Your task to perform on an android device: View the shopping cart on amazon. Image 0: 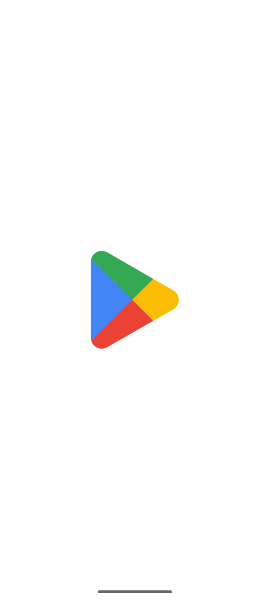
Step 0: press home button
Your task to perform on an android device: View the shopping cart on amazon. Image 1: 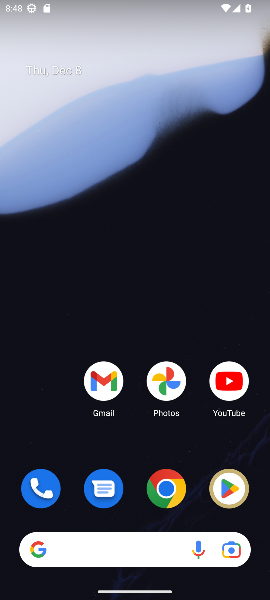
Step 1: drag from (120, 551) to (120, 259)
Your task to perform on an android device: View the shopping cart on amazon. Image 2: 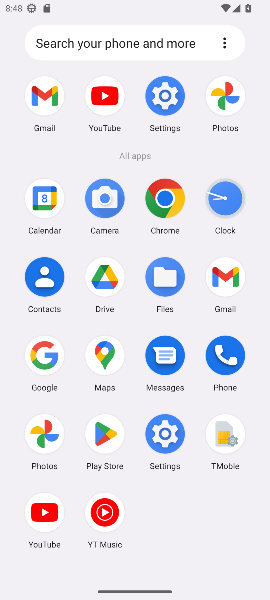
Step 2: click (43, 350)
Your task to perform on an android device: View the shopping cart on amazon. Image 3: 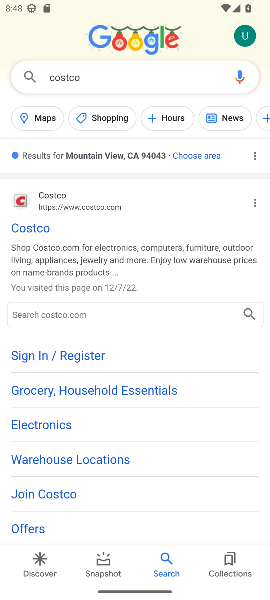
Step 3: click (82, 78)
Your task to perform on an android device: View the shopping cart on amazon. Image 4: 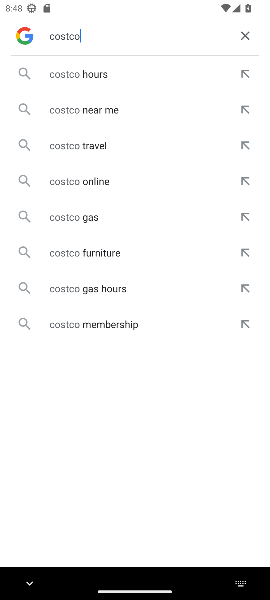
Step 4: click (245, 37)
Your task to perform on an android device: View the shopping cart on amazon. Image 5: 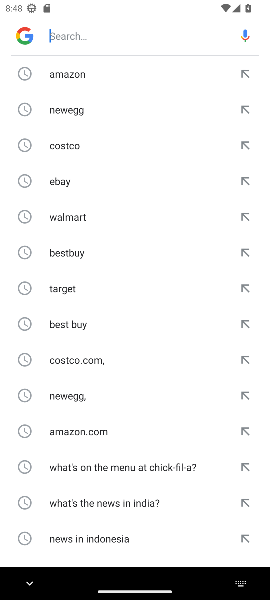
Step 5: click (73, 71)
Your task to perform on an android device: View the shopping cart on amazon. Image 6: 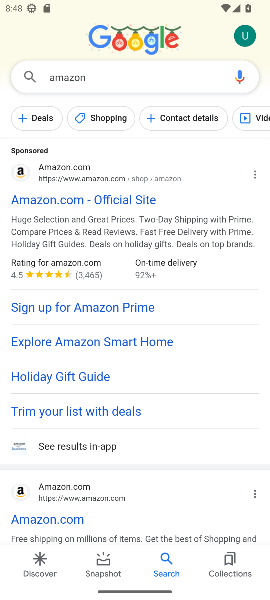
Step 6: click (64, 196)
Your task to perform on an android device: View the shopping cart on amazon. Image 7: 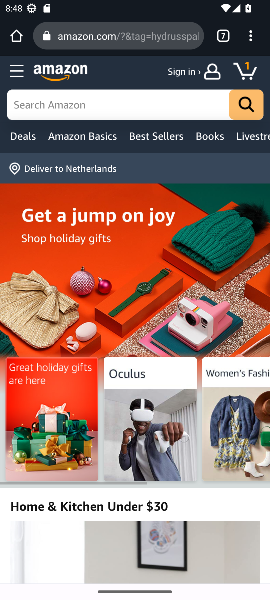
Step 7: click (39, 106)
Your task to perform on an android device: View the shopping cart on amazon. Image 8: 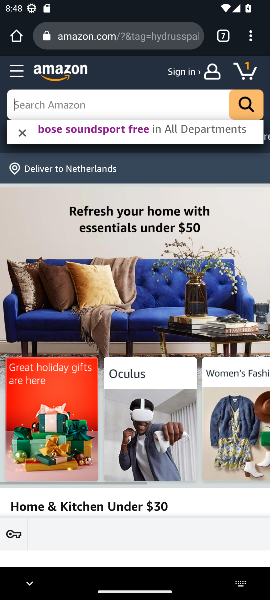
Step 8: click (248, 69)
Your task to perform on an android device: View the shopping cart on amazon. Image 9: 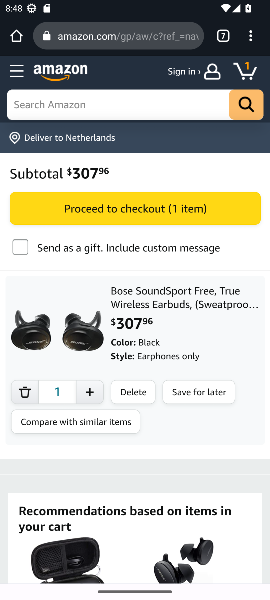
Step 9: task complete